Your task to perform on an android device: Open my contact list Image 0: 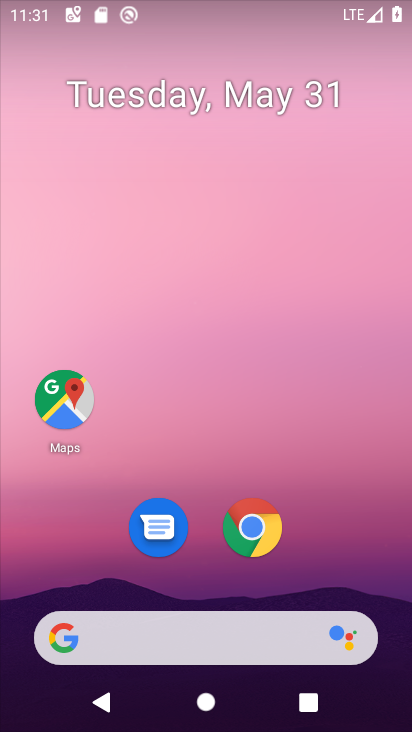
Step 0: drag from (322, 590) to (316, 3)
Your task to perform on an android device: Open my contact list Image 1: 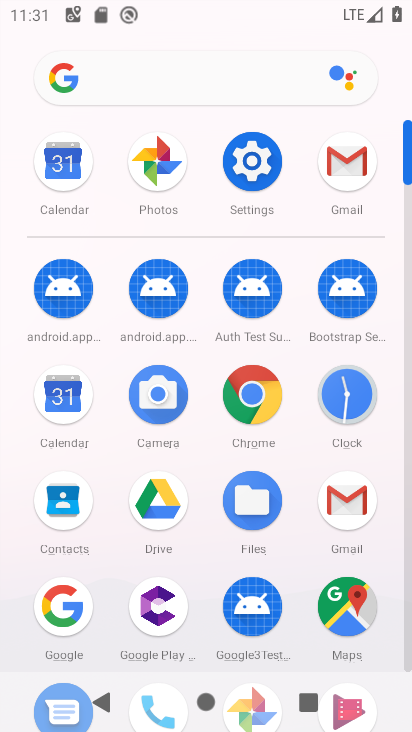
Step 1: click (52, 507)
Your task to perform on an android device: Open my contact list Image 2: 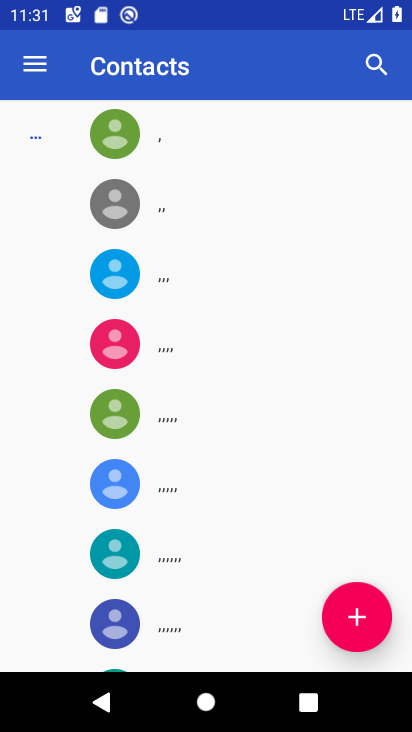
Step 2: task complete